Your task to perform on an android device: Show me popular videos on Youtube Image 0: 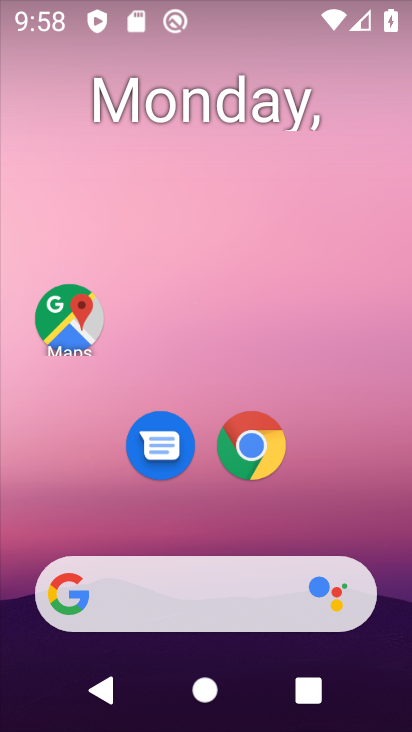
Step 0: drag from (343, 493) to (358, 165)
Your task to perform on an android device: Show me popular videos on Youtube Image 1: 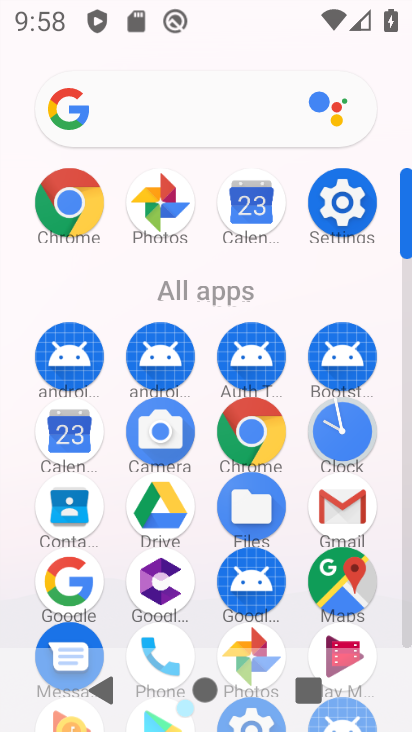
Step 1: drag from (299, 634) to (350, 254)
Your task to perform on an android device: Show me popular videos on Youtube Image 2: 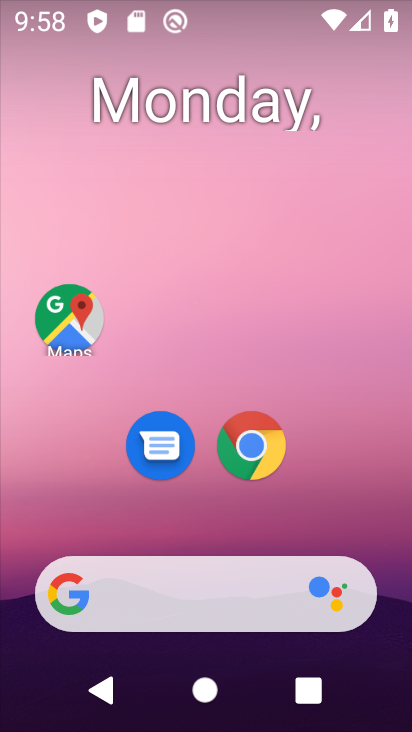
Step 2: drag from (327, 526) to (373, 180)
Your task to perform on an android device: Show me popular videos on Youtube Image 3: 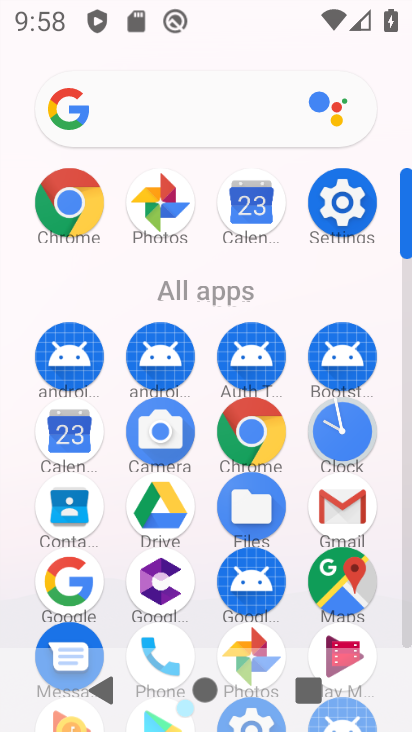
Step 3: drag from (287, 626) to (308, 347)
Your task to perform on an android device: Show me popular videos on Youtube Image 4: 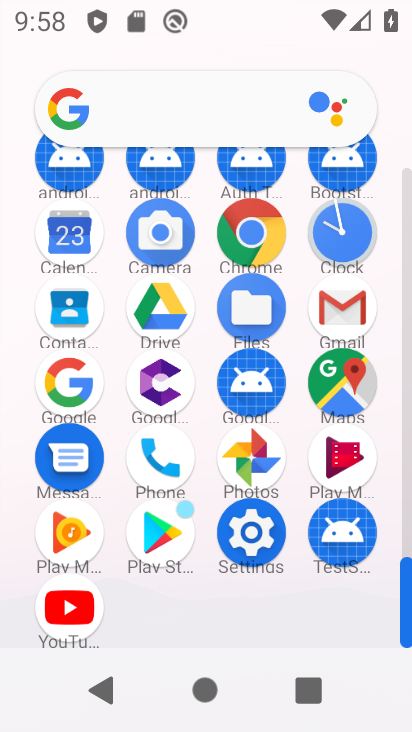
Step 4: click (82, 609)
Your task to perform on an android device: Show me popular videos on Youtube Image 5: 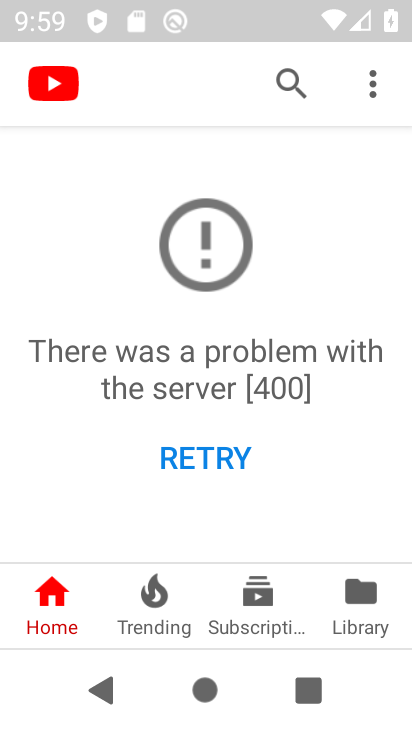
Step 5: click (245, 459)
Your task to perform on an android device: Show me popular videos on Youtube Image 6: 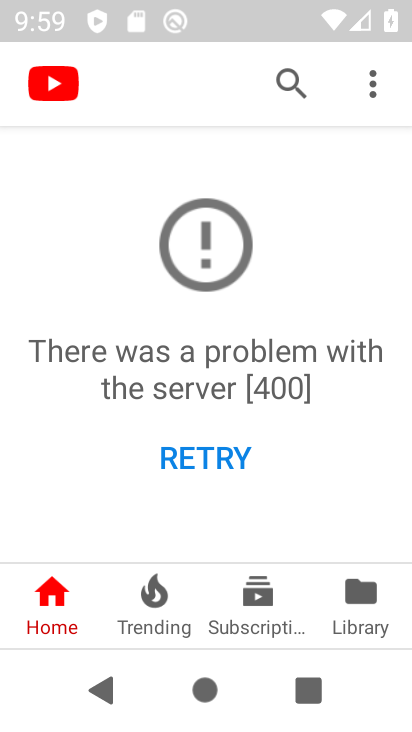
Step 6: task complete